Your task to perform on an android device: Go to calendar. Show me events next week Image 0: 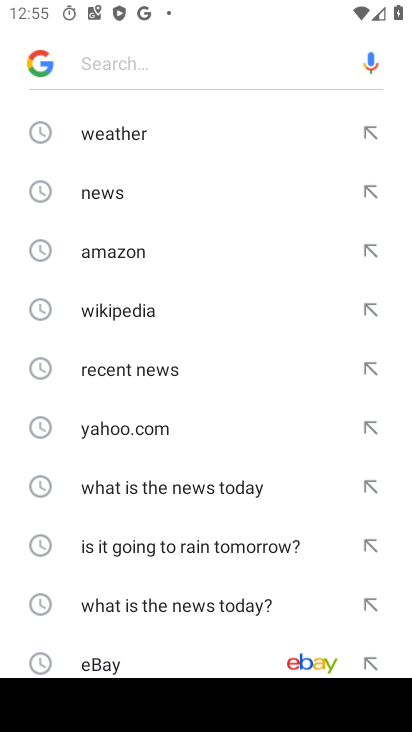
Step 0: press home button
Your task to perform on an android device: Go to calendar. Show me events next week Image 1: 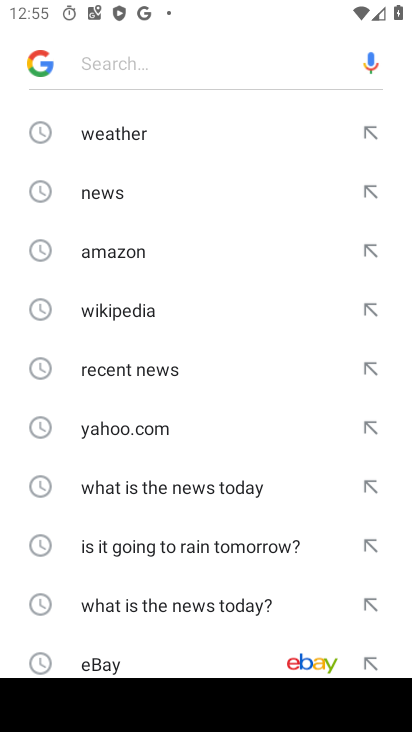
Step 1: press home button
Your task to perform on an android device: Go to calendar. Show me events next week Image 2: 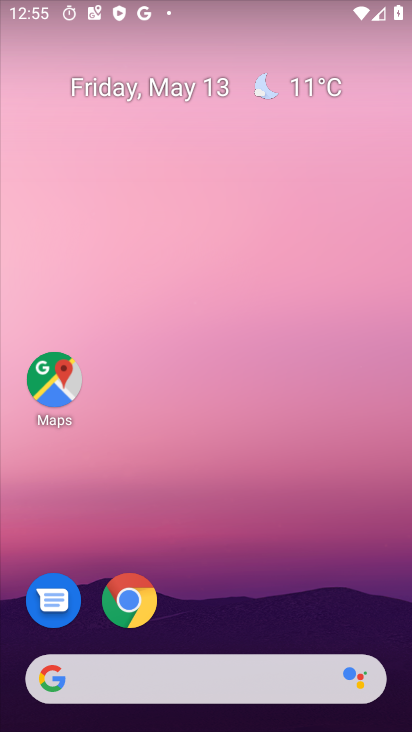
Step 2: drag from (241, 641) to (236, 229)
Your task to perform on an android device: Go to calendar. Show me events next week Image 3: 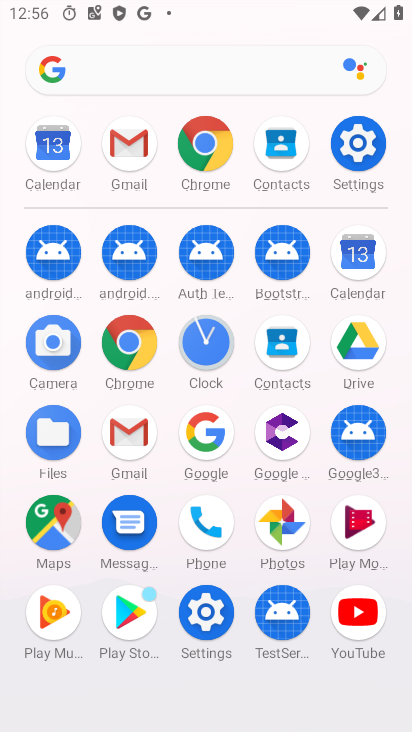
Step 3: click (354, 270)
Your task to perform on an android device: Go to calendar. Show me events next week Image 4: 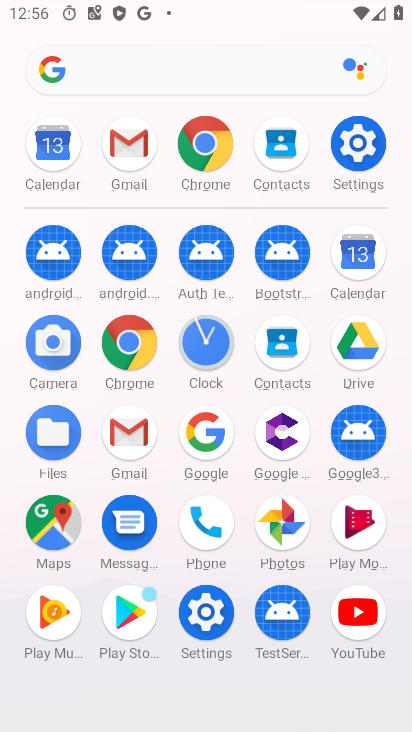
Step 4: click (354, 270)
Your task to perform on an android device: Go to calendar. Show me events next week Image 5: 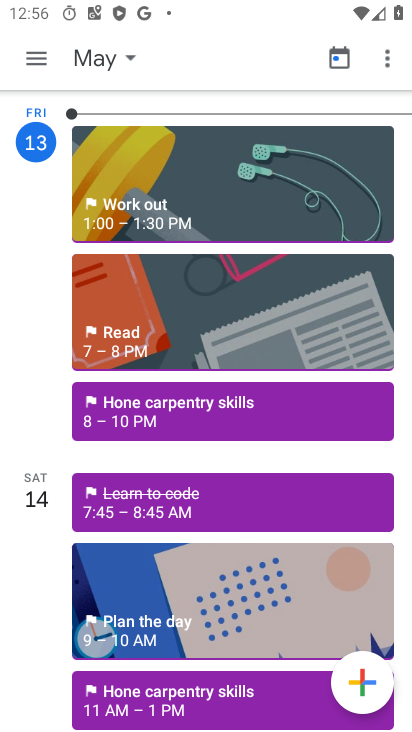
Step 5: drag from (209, 527) to (207, 257)
Your task to perform on an android device: Go to calendar. Show me events next week Image 6: 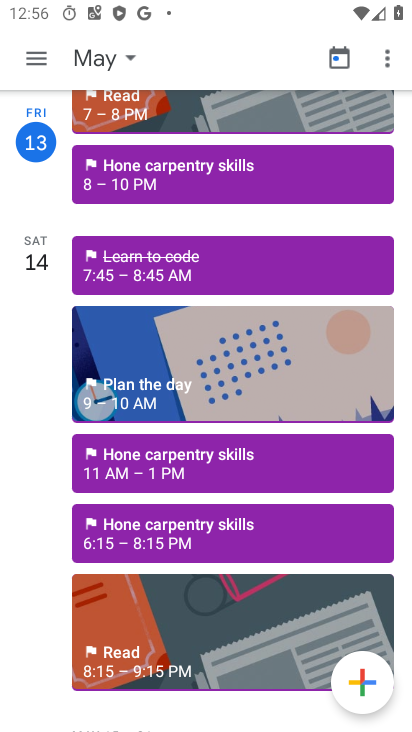
Step 6: click (120, 66)
Your task to perform on an android device: Go to calendar. Show me events next week Image 7: 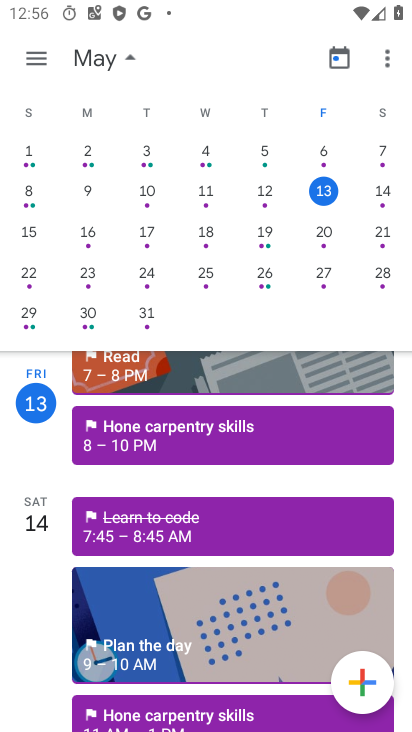
Step 7: click (317, 228)
Your task to perform on an android device: Go to calendar. Show me events next week Image 8: 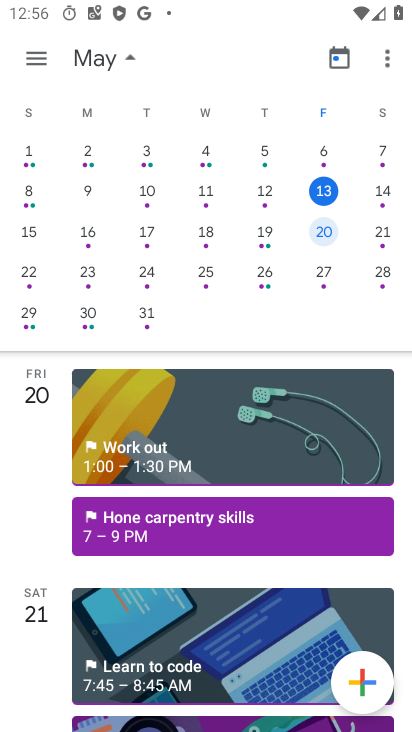
Step 8: task complete